Your task to perform on an android device: turn off location history Image 0: 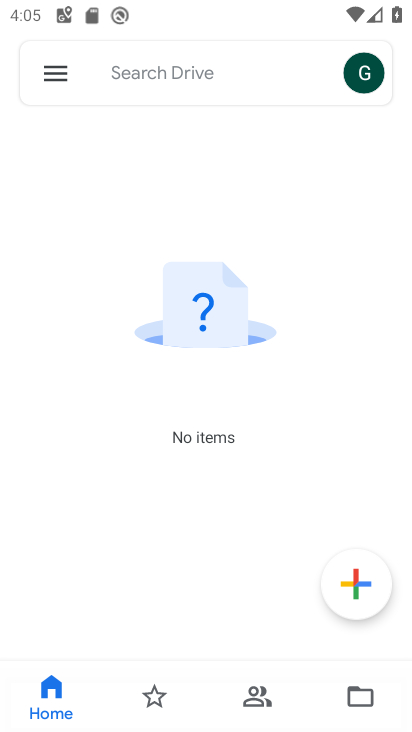
Step 0: press home button
Your task to perform on an android device: turn off location history Image 1: 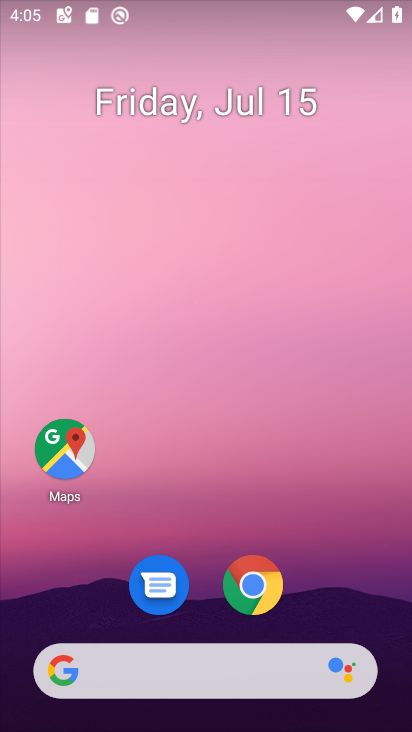
Step 1: drag from (211, 521) to (217, 10)
Your task to perform on an android device: turn off location history Image 2: 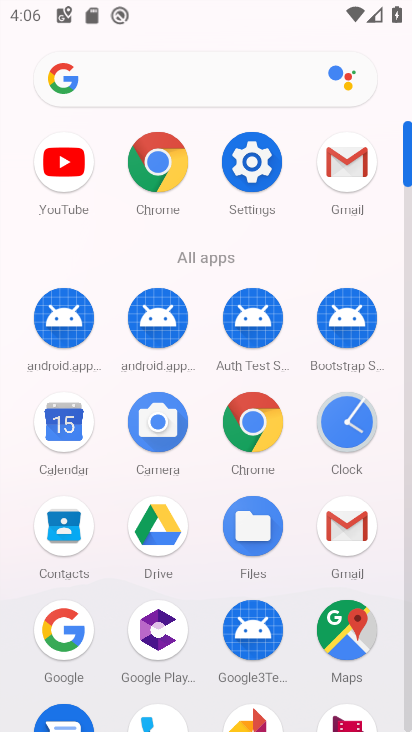
Step 2: click (256, 163)
Your task to perform on an android device: turn off location history Image 3: 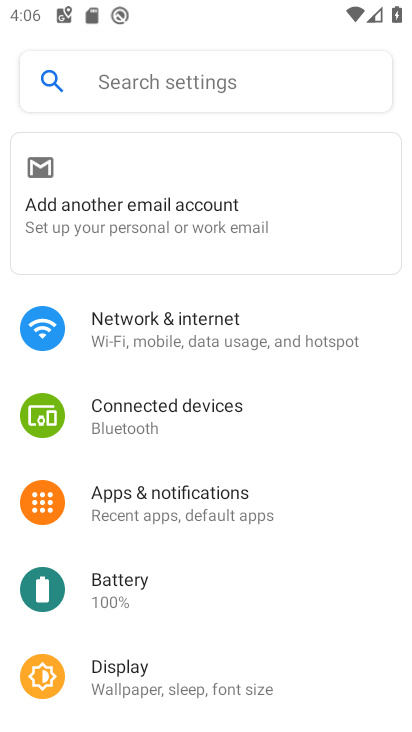
Step 3: drag from (224, 629) to (254, 113)
Your task to perform on an android device: turn off location history Image 4: 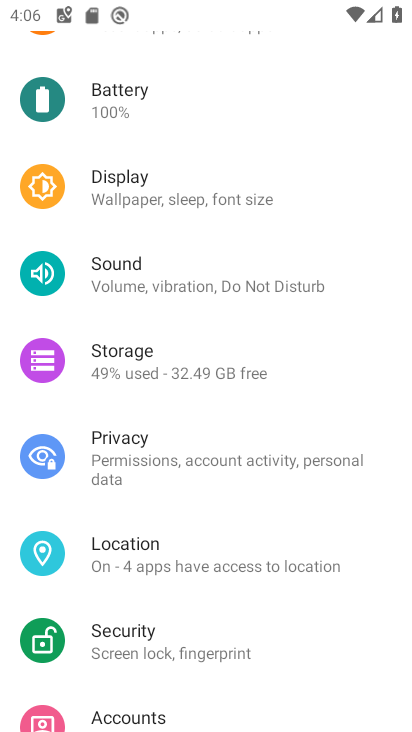
Step 4: click (233, 552)
Your task to perform on an android device: turn off location history Image 5: 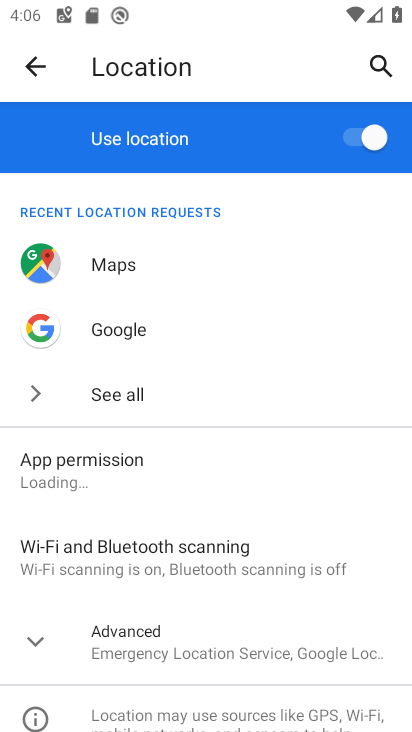
Step 5: drag from (265, 543) to (282, 206)
Your task to perform on an android device: turn off location history Image 6: 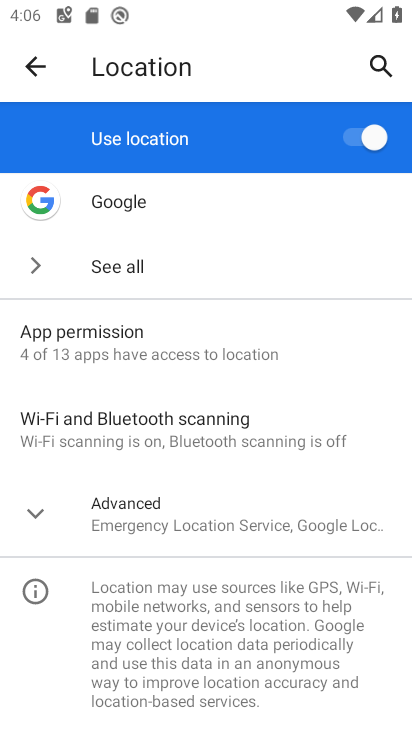
Step 6: click (34, 515)
Your task to perform on an android device: turn off location history Image 7: 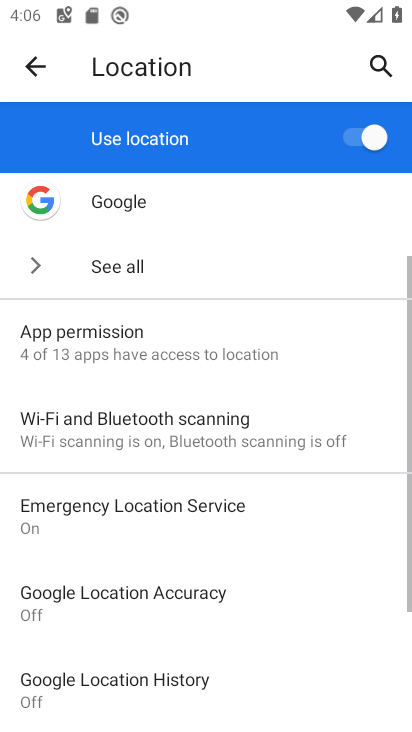
Step 7: drag from (188, 574) to (212, 382)
Your task to perform on an android device: turn off location history Image 8: 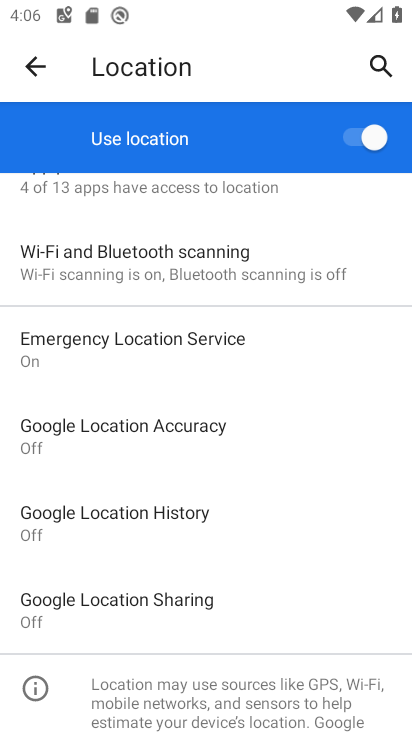
Step 8: click (194, 509)
Your task to perform on an android device: turn off location history Image 9: 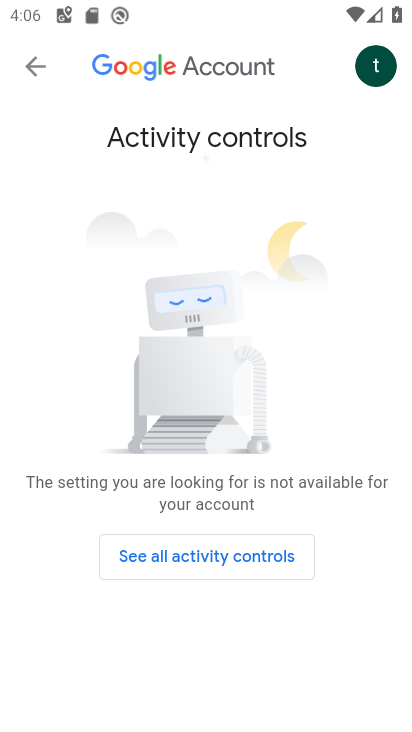
Step 9: click (248, 549)
Your task to perform on an android device: turn off location history Image 10: 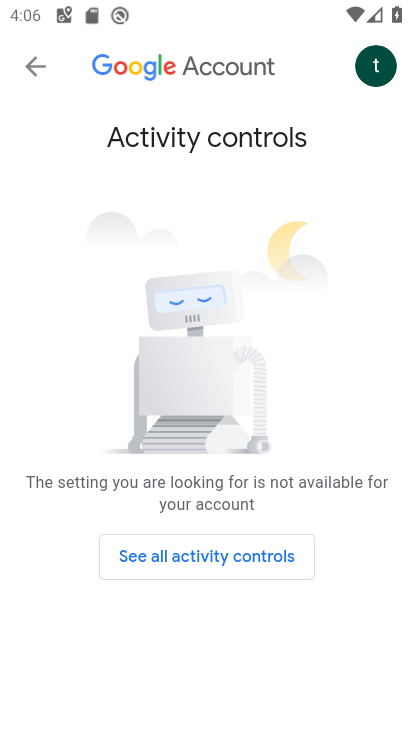
Step 10: click (250, 553)
Your task to perform on an android device: turn off location history Image 11: 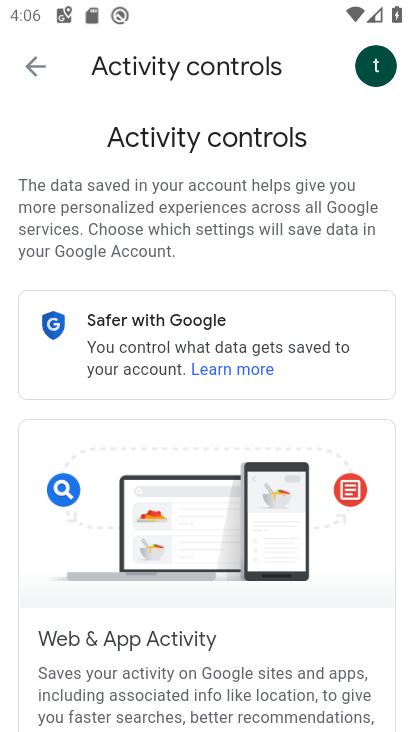
Step 11: drag from (245, 643) to (250, 184)
Your task to perform on an android device: turn off location history Image 12: 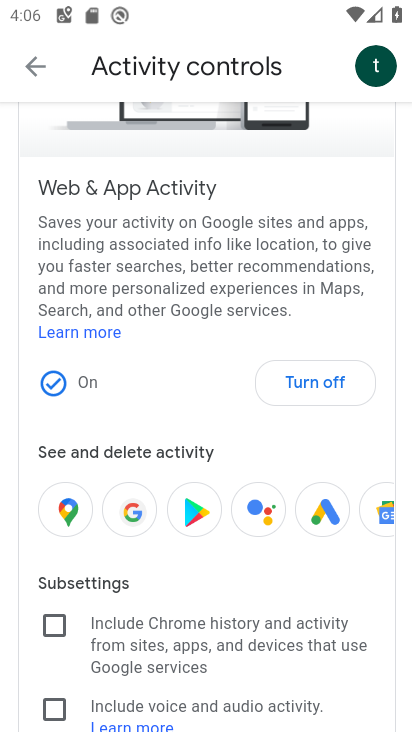
Step 12: click (334, 385)
Your task to perform on an android device: turn off location history Image 13: 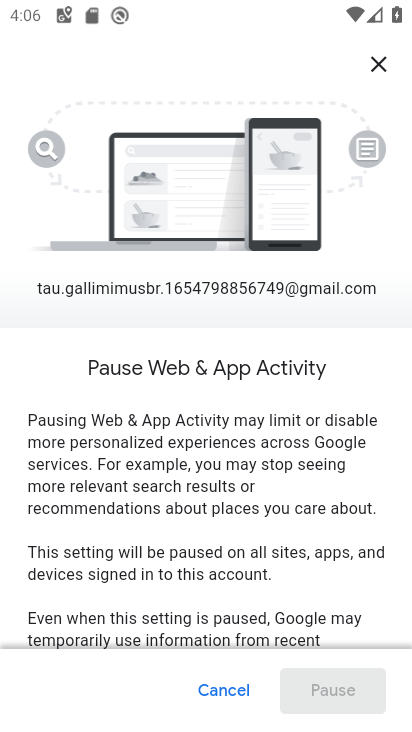
Step 13: drag from (301, 538) to (281, 113)
Your task to perform on an android device: turn off location history Image 14: 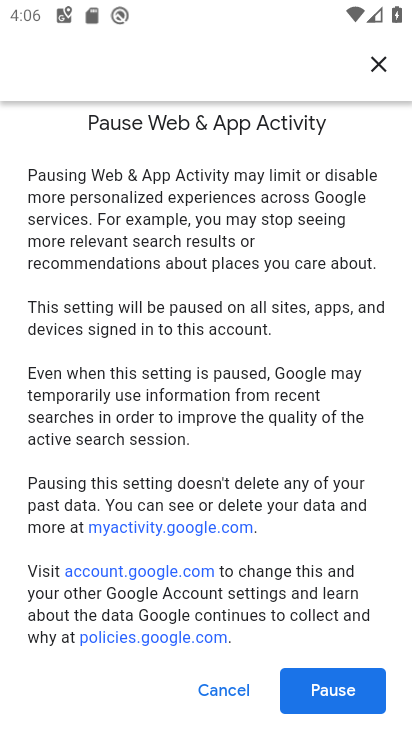
Step 14: click (353, 689)
Your task to perform on an android device: turn off location history Image 15: 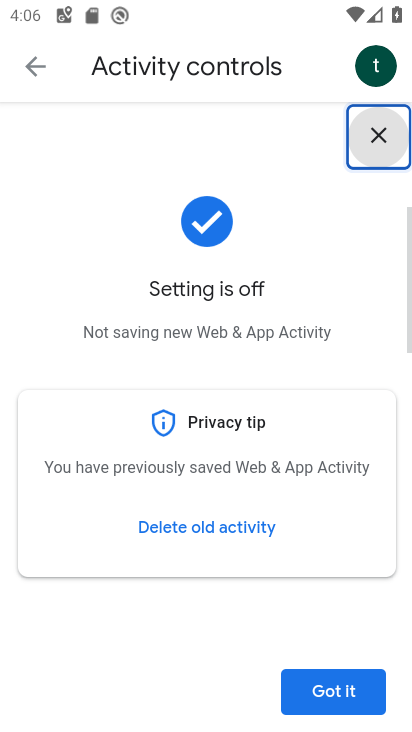
Step 15: click (353, 688)
Your task to perform on an android device: turn off location history Image 16: 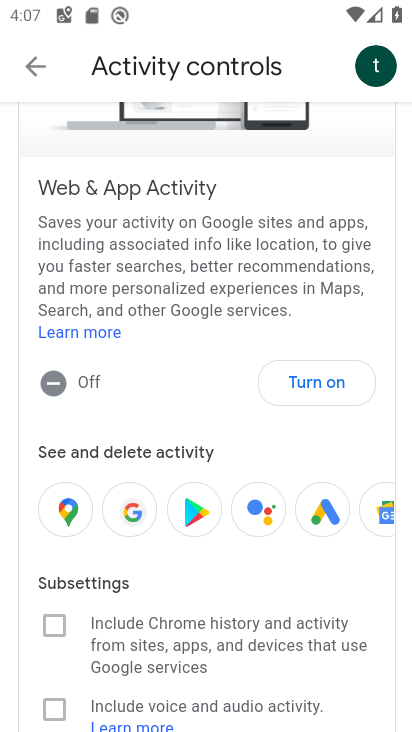
Step 16: task complete